Your task to perform on an android device: change the clock style Image 0: 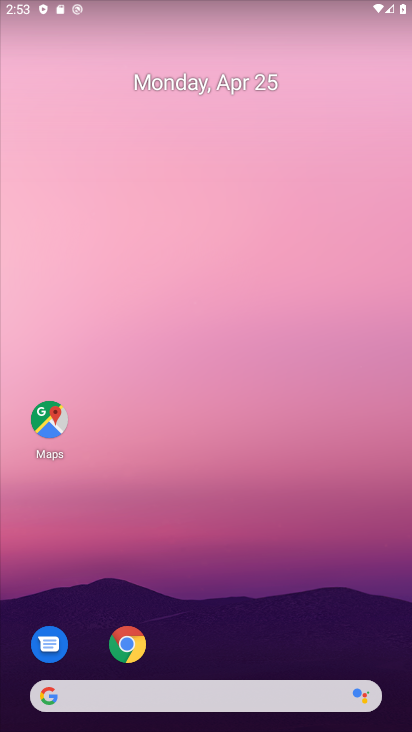
Step 0: drag from (227, 572) to (243, 69)
Your task to perform on an android device: change the clock style Image 1: 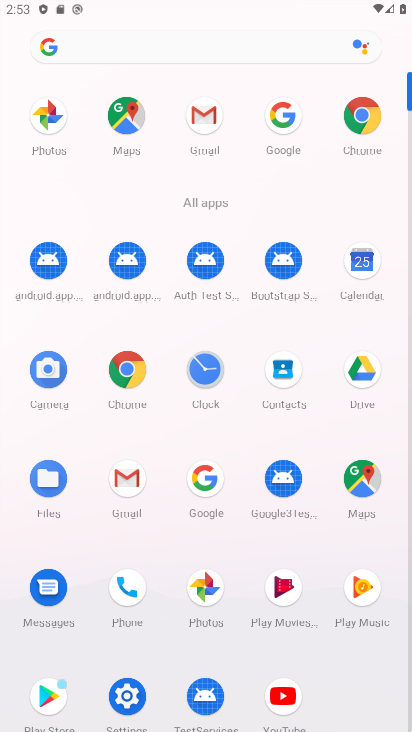
Step 1: click (206, 369)
Your task to perform on an android device: change the clock style Image 2: 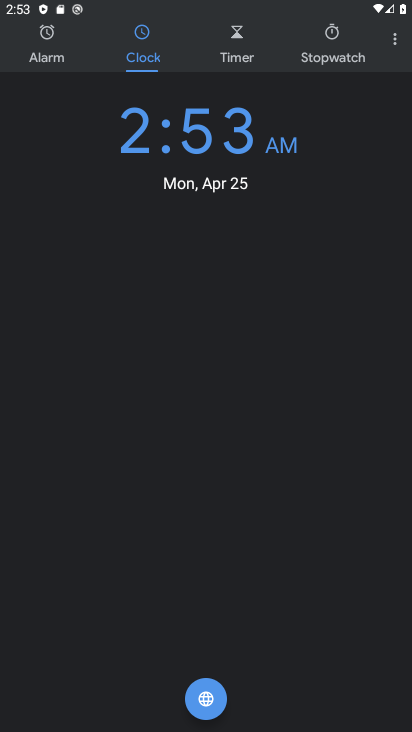
Step 2: click (393, 42)
Your task to perform on an android device: change the clock style Image 3: 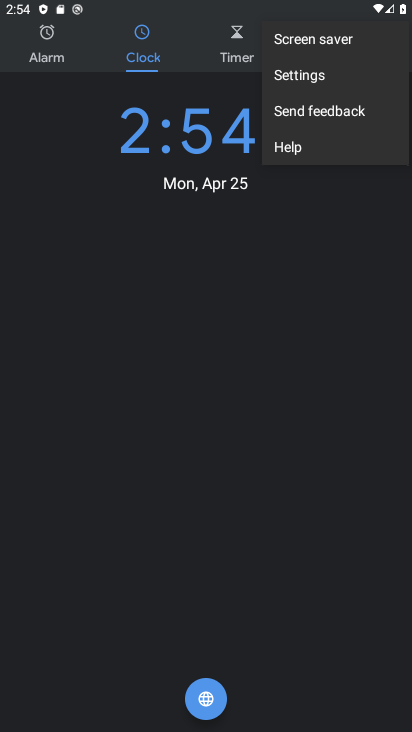
Step 3: click (332, 77)
Your task to perform on an android device: change the clock style Image 4: 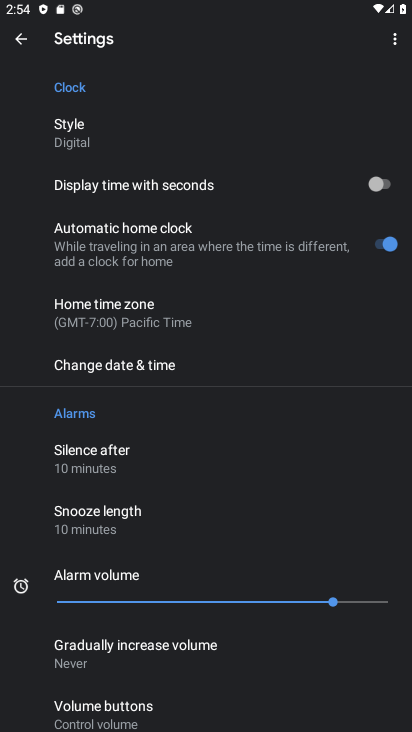
Step 4: click (231, 129)
Your task to perform on an android device: change the clock style Image 5: 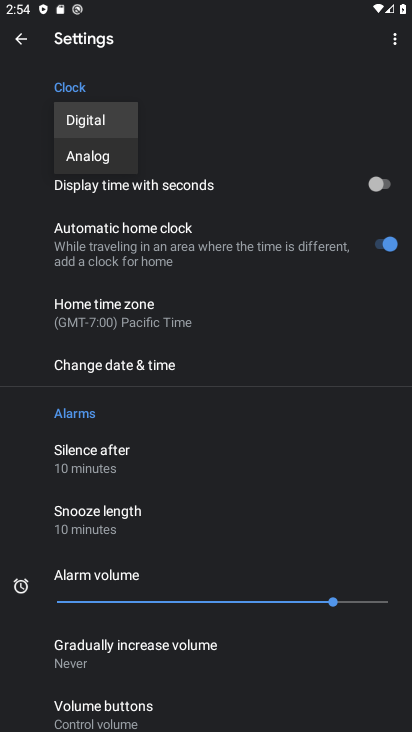
Step 5: click (127, 163)
Your task to perform on an android device: change the clock style Image 6: 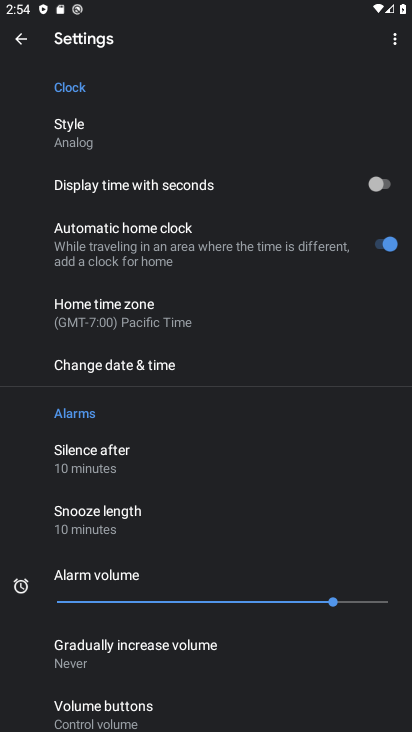
Step 6: task complete